Your task to perform on an android device: Open Wikipedia Image 0: 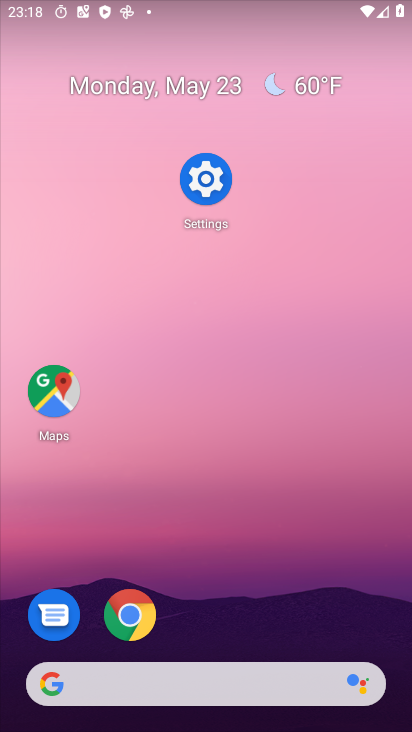
Step 0: click (135, 614)
Your task to perform on an android device: Open Wikipedia Image 1: 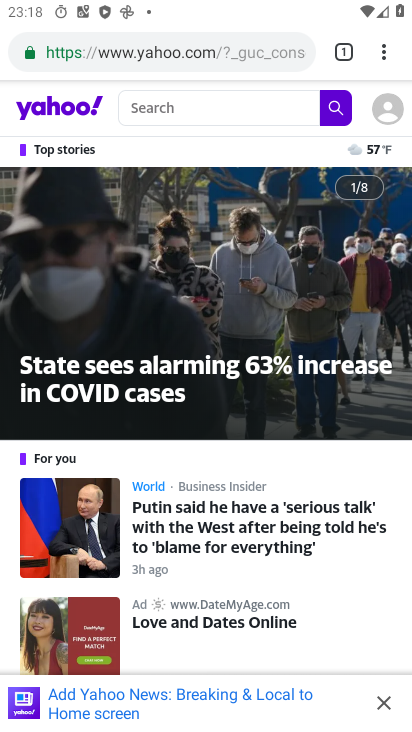
Step 1: press back button
Your task to perform on an android device: Open Wikipedia Image 2: 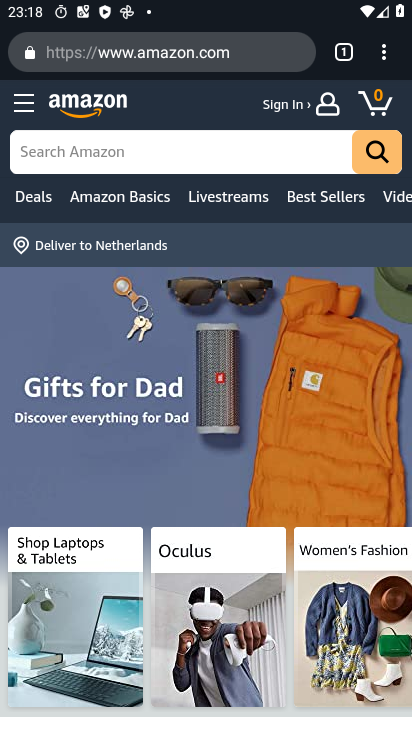
Step 2: press back button
Your task to perform on an android device: Open Wikipedia Image 3: 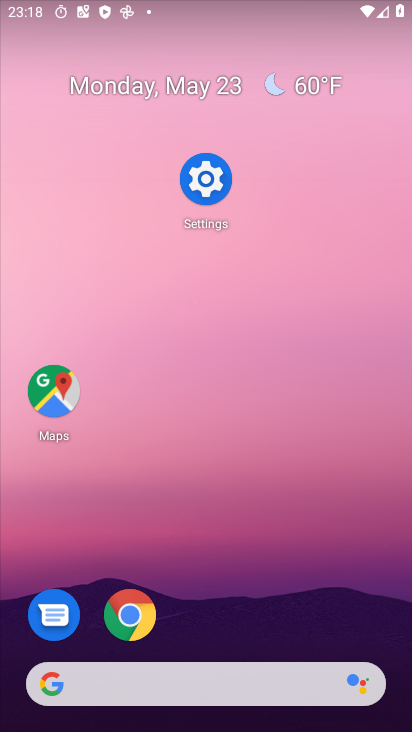
Step 3: click (133, 612)
Your task to perform on an android device: Open Wikipedia Image 4: 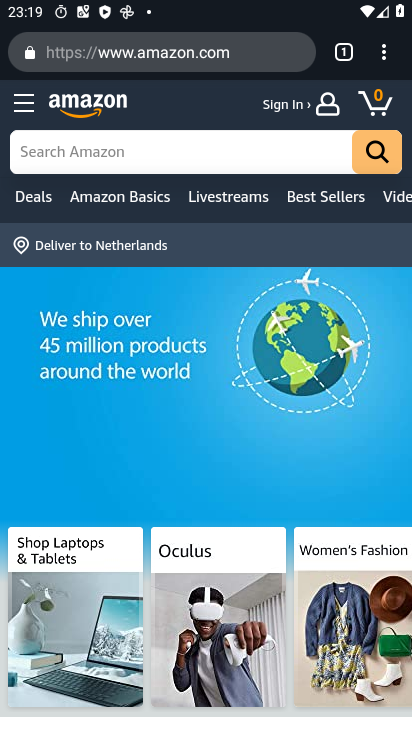
Step 4: click (211, 42)
Your task to perform on an android device: Open Wikipedia Image 5: 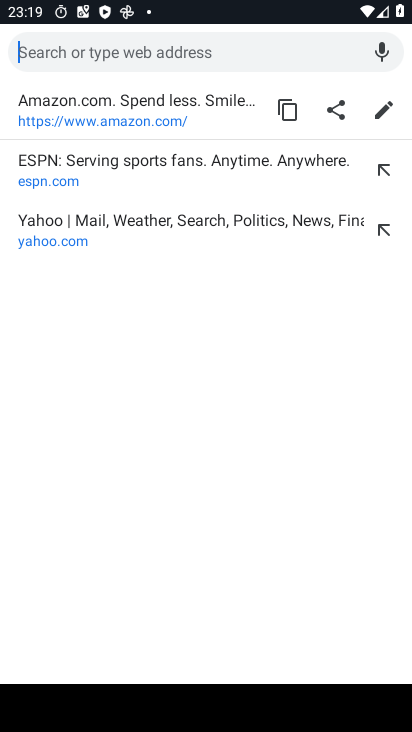
Step 5: type "wikkipedia"
Your task to perform on an android device: Open Wikipedia Image 6: 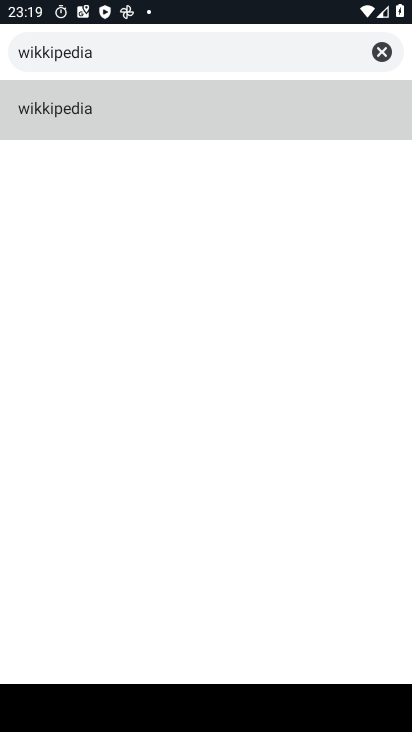
Step 6: click (163, 126)
Your task to perform on an android device: Open Wikipedia Image 7: 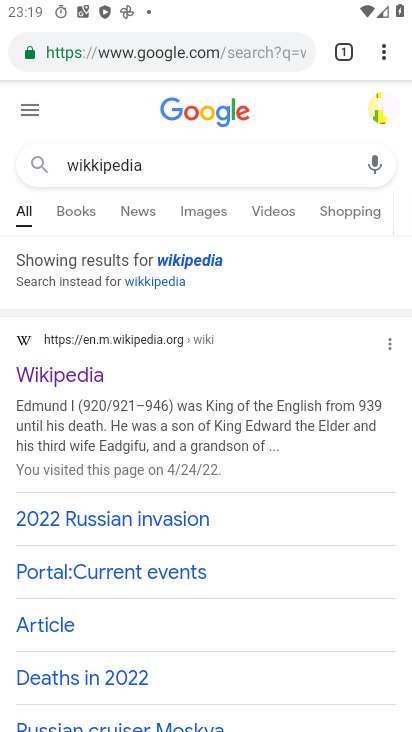
Step 7: click (95, 363)
Your task to perform on an android device: Open Wikipedia Image 8: 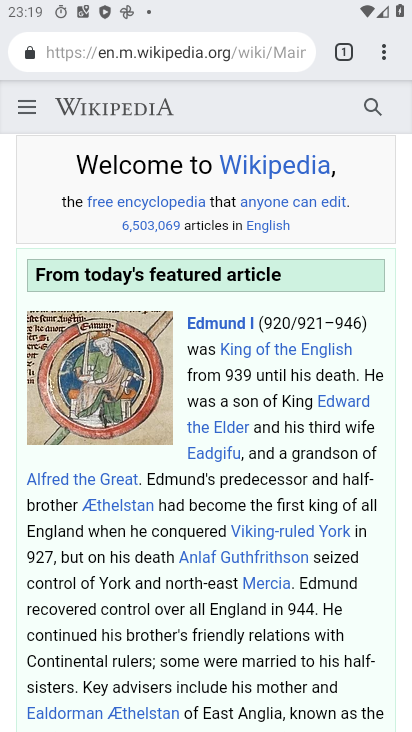
Step 8: task complete